Your task to perform on an android device: Open my contact list Image 0: 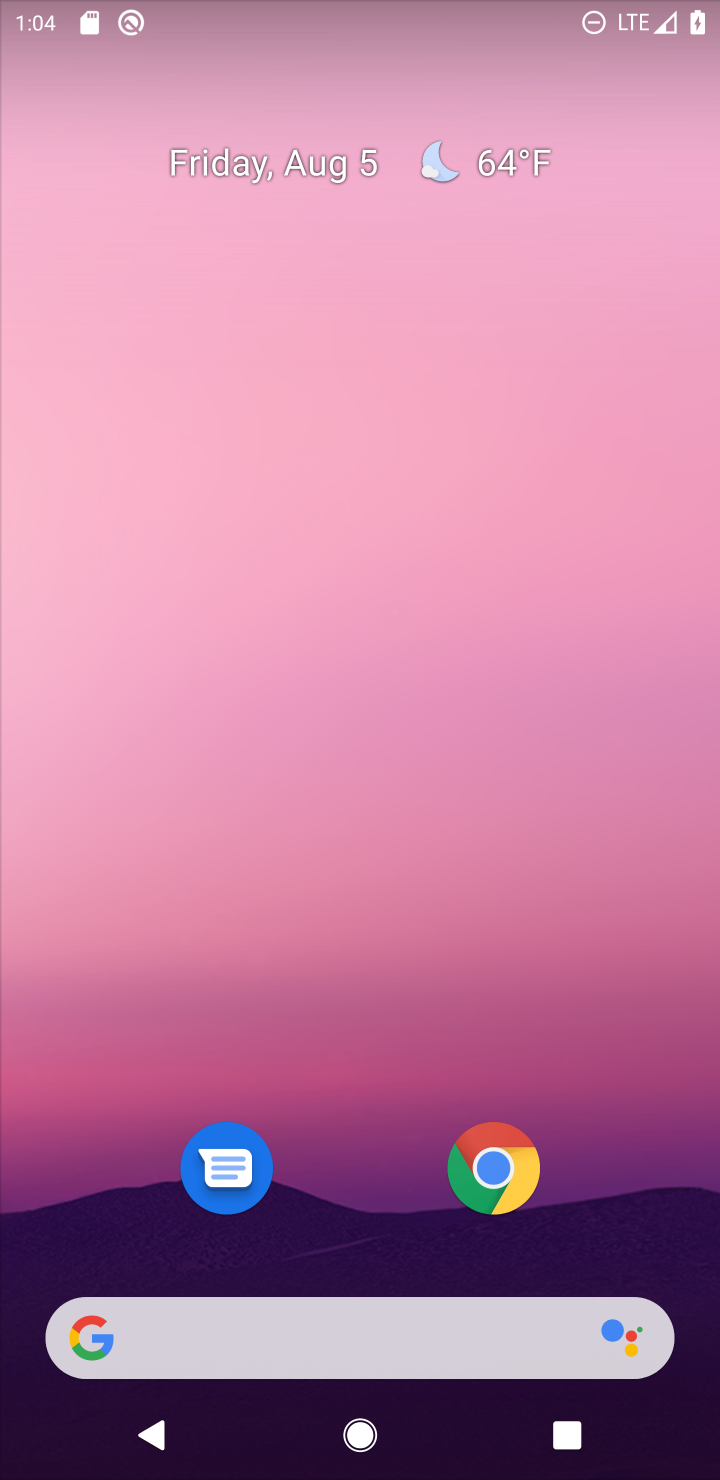
Step 0: drag from (551, 885) to (298, 24)
Your task to perform on an android device: Open my contact list Image 1: 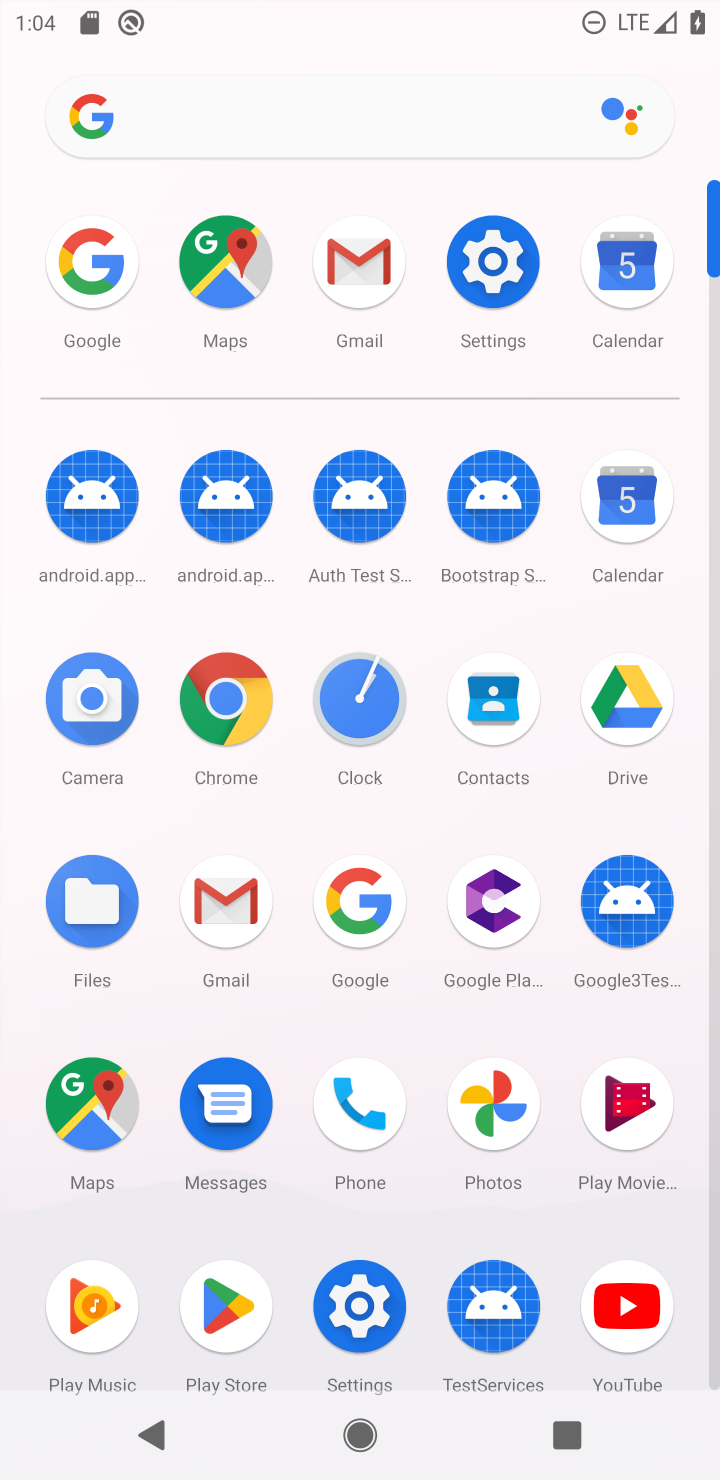
Step 1: click (483, 702)
Your task to perform on an android device: Open my contact list Image 2: 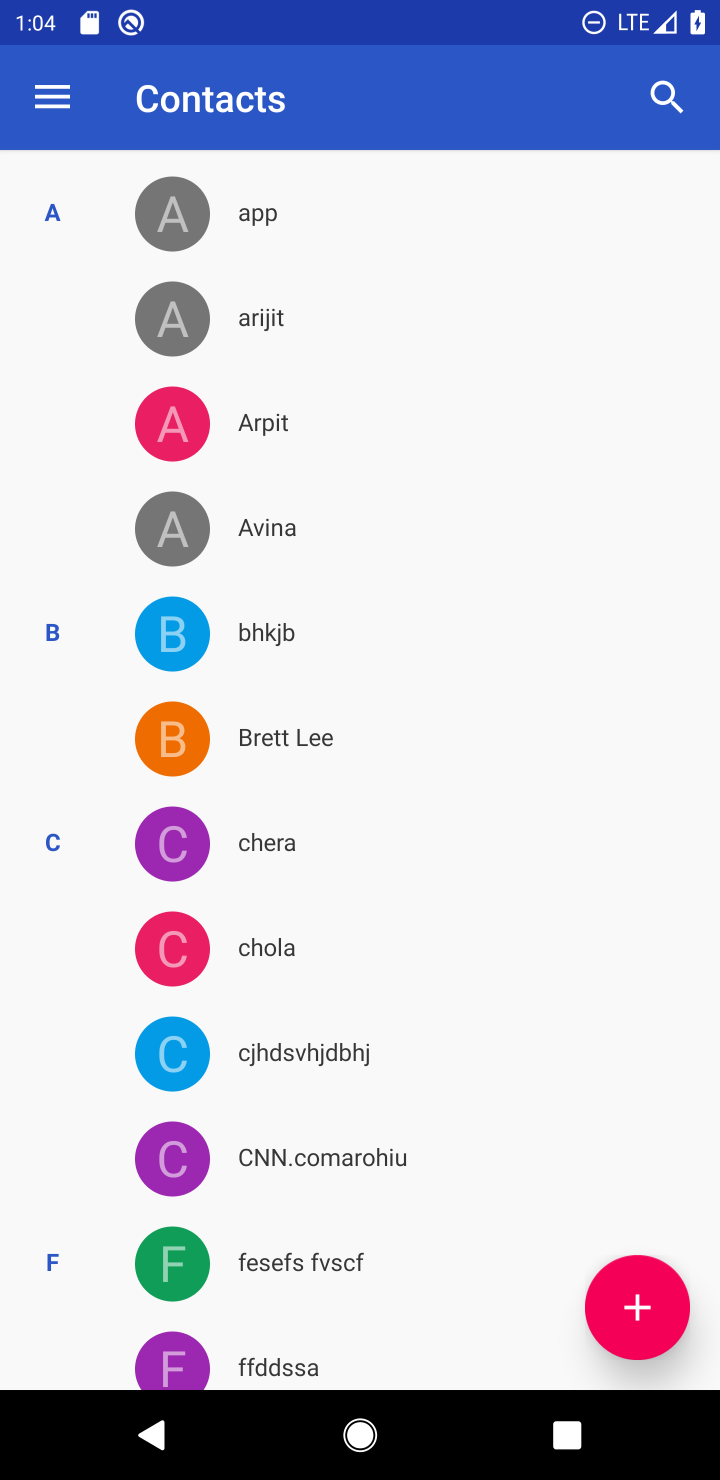
Step 2: task complete